Your task to perform on an android device: Go to Android settings Image 0: 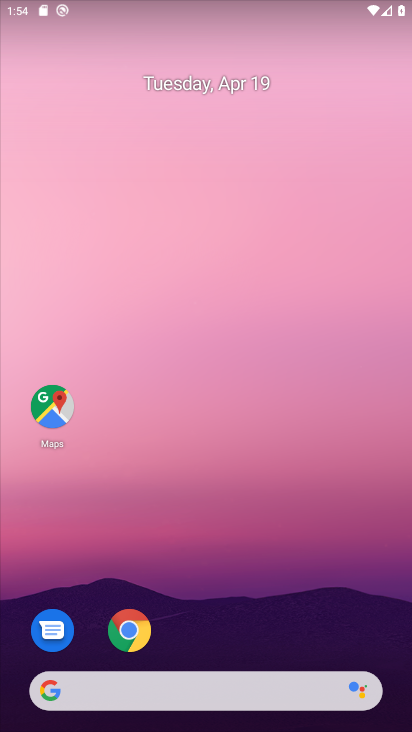
Step 0: drag from (246, 583) to (241, 44)
Your task to perform on an android device: Go to Android settings Image 1: 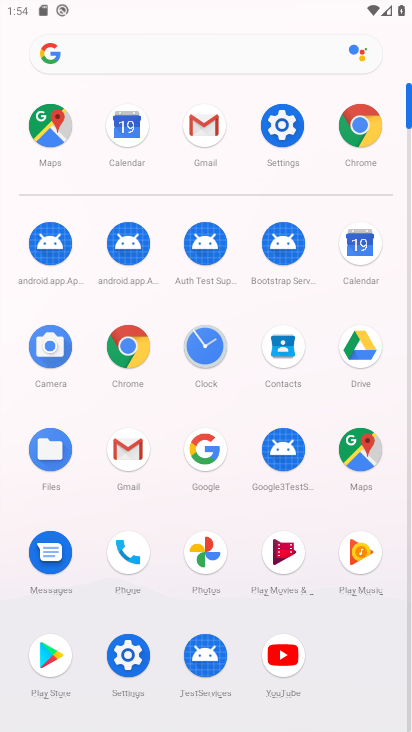
Step 1: click (290, 128)
Your task to perform on an android device: Go to Android settings Image 2: 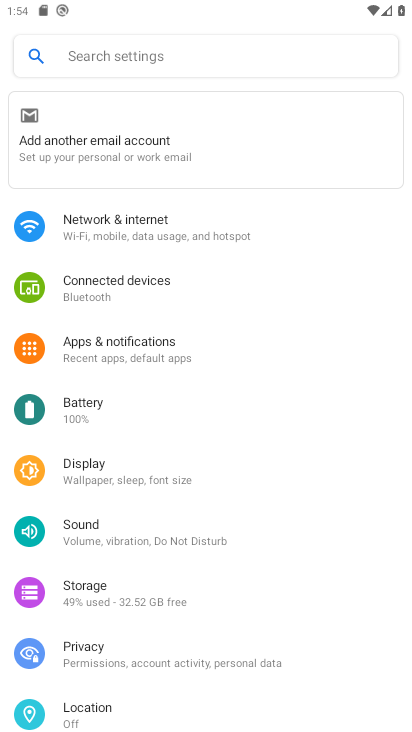
Step 2: drag from (188, 577) to (263, 225)
Your task to perform on an android device: Go to Android settings Image 3: 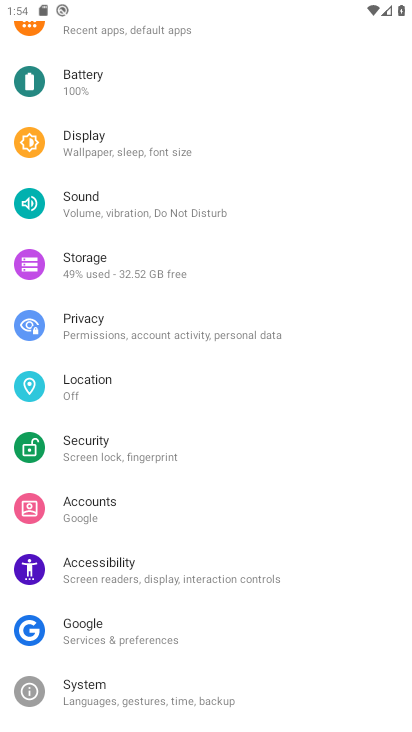
Step 3: click (218, 675)
Your task to perform on an android device: Go to Android settings Image 4: 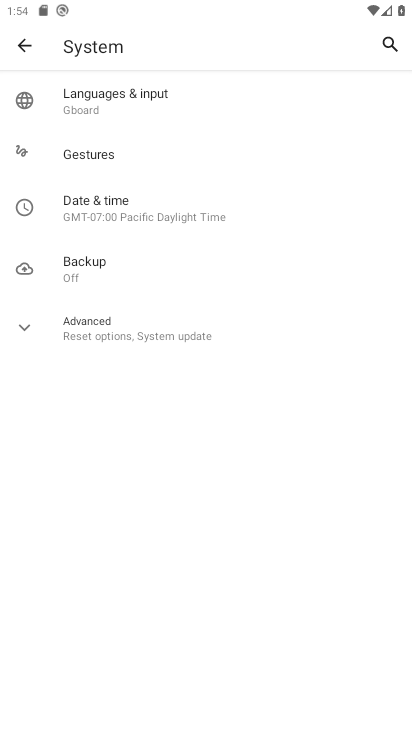
Step 4: task complete